Your task to perform on an android device: Open accessibility settings Image 0: 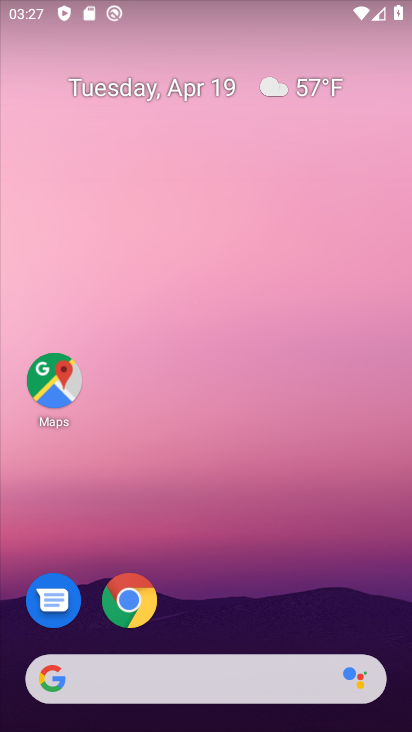
Step 0: drag from (386, 551) to (288, 96)
Your task to perform on an android device: Open accessibility settings Image 1: 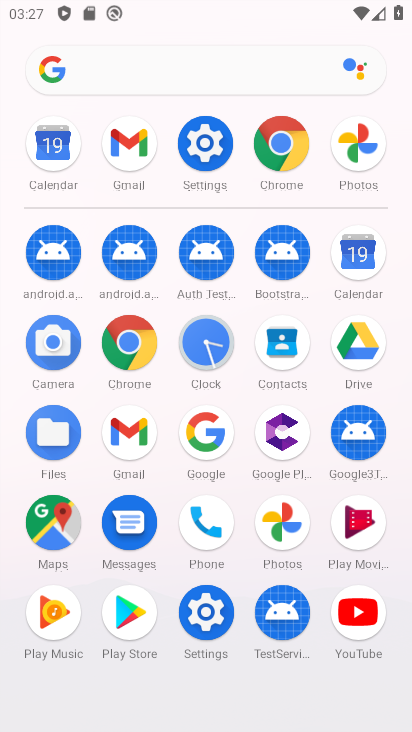
Step 1: click (294, 129)
Your task to perform on an android device: Open accessibility settings Image 2: 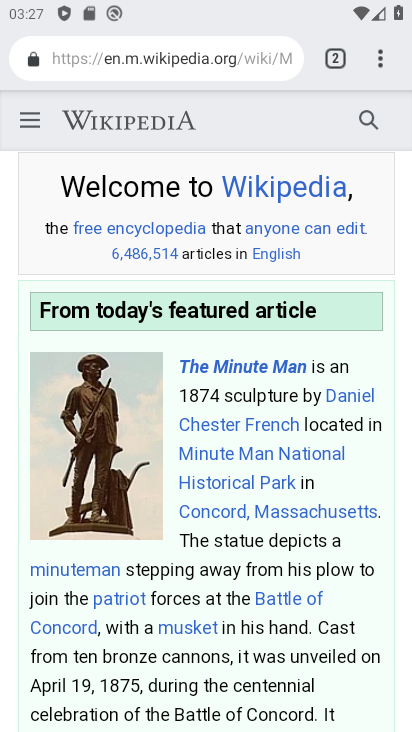
Step 2: click (383, 53)
Your task to perform on an android device: Open accessibility settings Image 3: 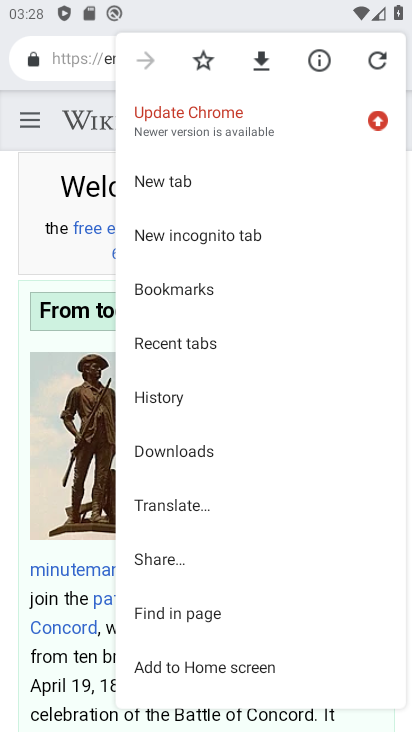
Step 3: drag from (317, 631) to (263, 327)
Your task to perform on an android device: Open accessibility settings Image 4: 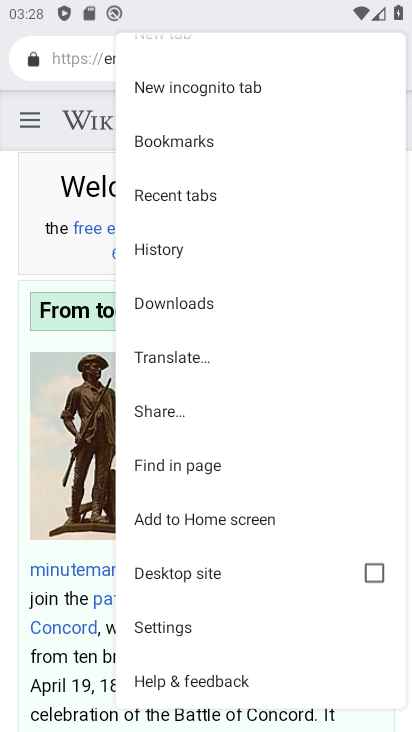
Step 4: click (231, 634)
Your task to perform on an android device: Open accessibility settings Image 5: 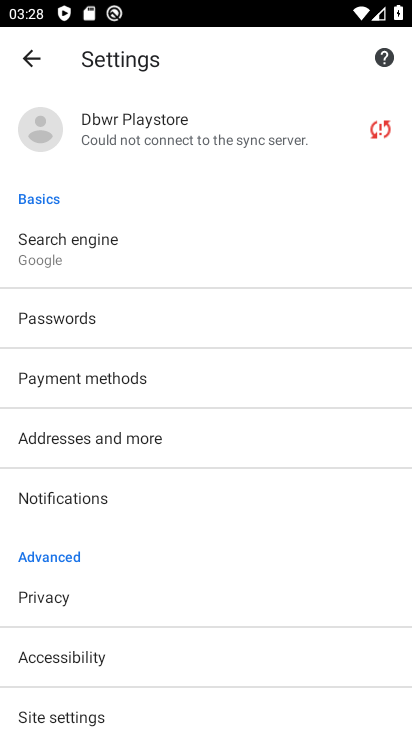
Step 5: drag from (308, 593) to (251, 132)
Your task to perform on an android device: Open accessibility settings Image 6: 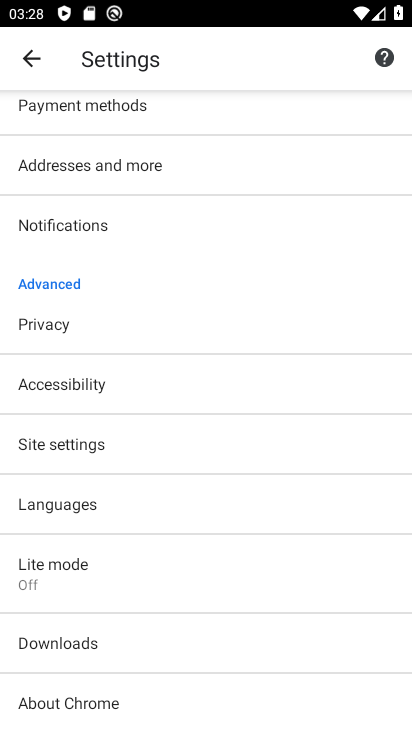
Step 6: click (253, 388)
Your task to perform on an android device: Open accessibility settings Image 7: 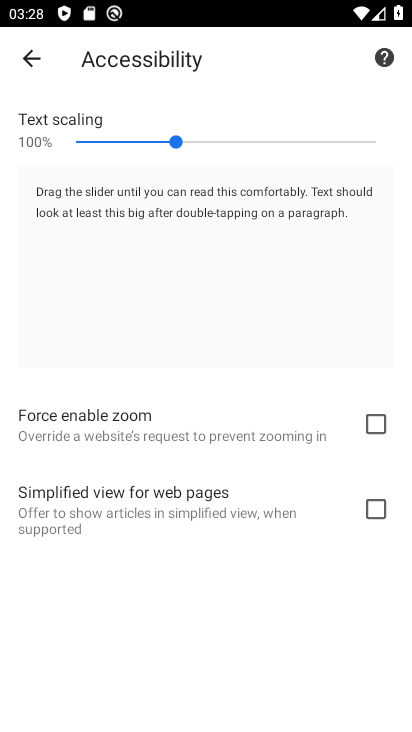
Step 7: task complete